Your task to perform on an android device: Open Google Chrome and open the bookmarks view Image 0: 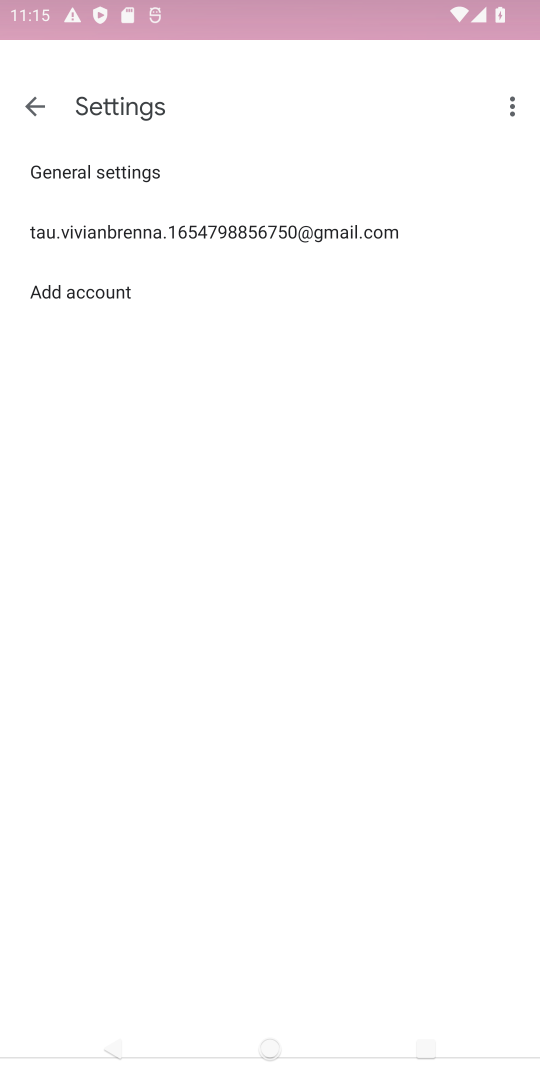
Step 0: press home button
Your task to perform on an android device: Open Google Chrome and open the bookmarks view Image 1: 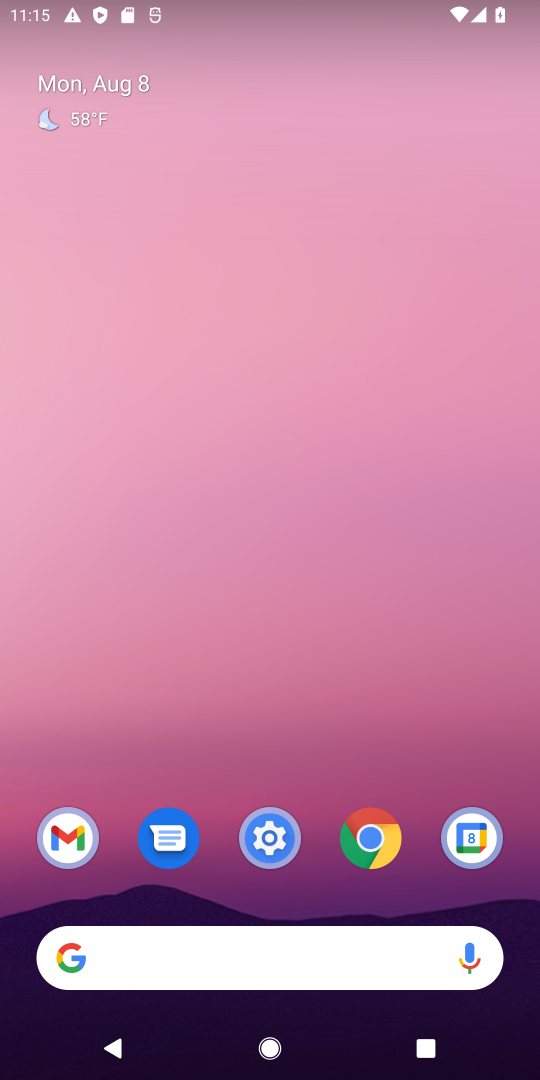
Step 1: click (364, 841)
Your task to perform on an android device: Open Google Chrome and open the bookmarks view Image 2: 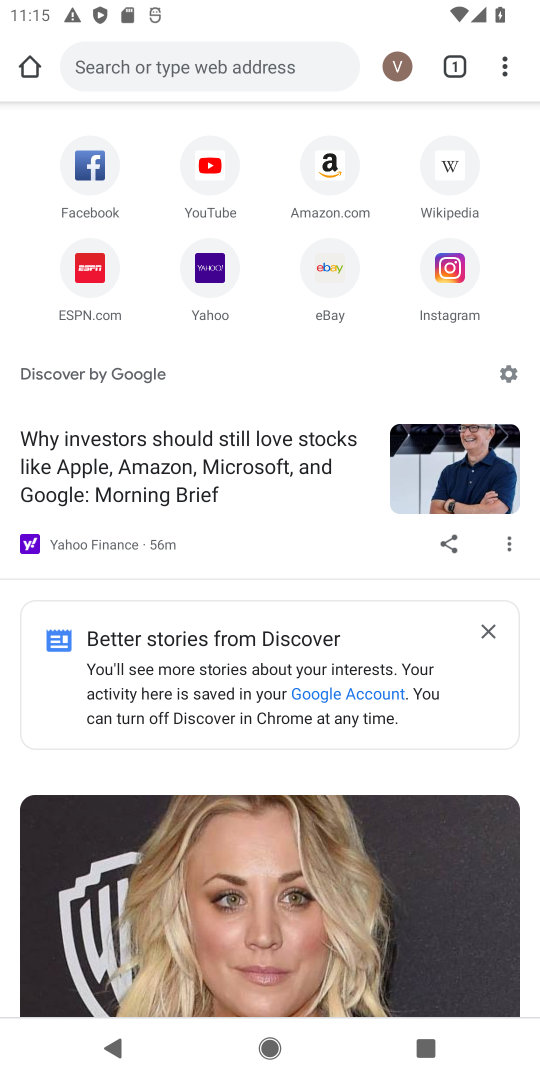
Step 2: task complete